Your task to perform on an android device: Open Wikipedia Image 0: 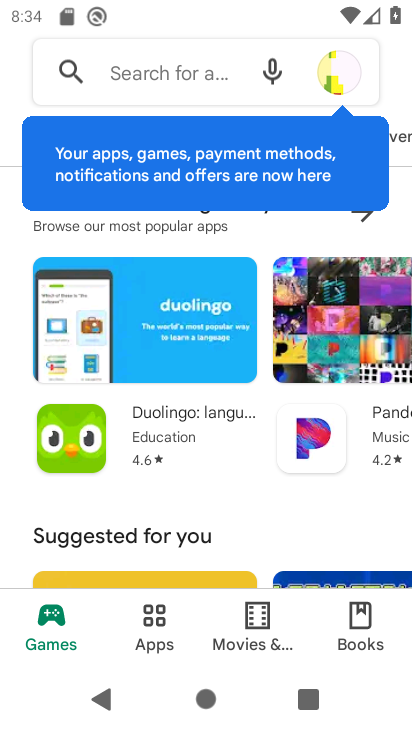
Step 0: press home button
Your task to perform on an android device: Open Wikipedia Image 1: 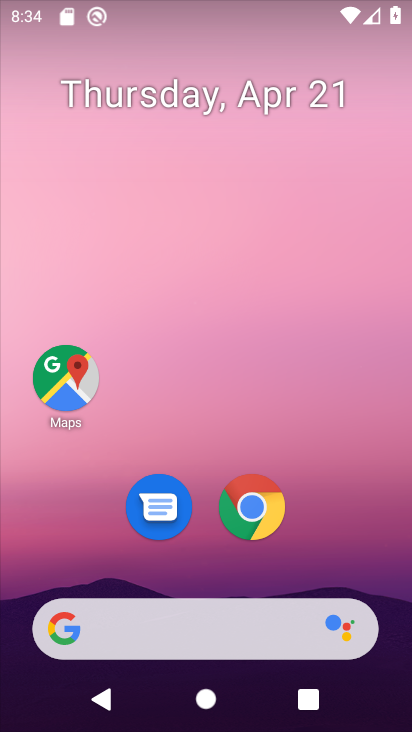
Step 1: drag from (381, 547) to (407, 79)
Your task to perform on an android device: Open Wikipedia Image 2: 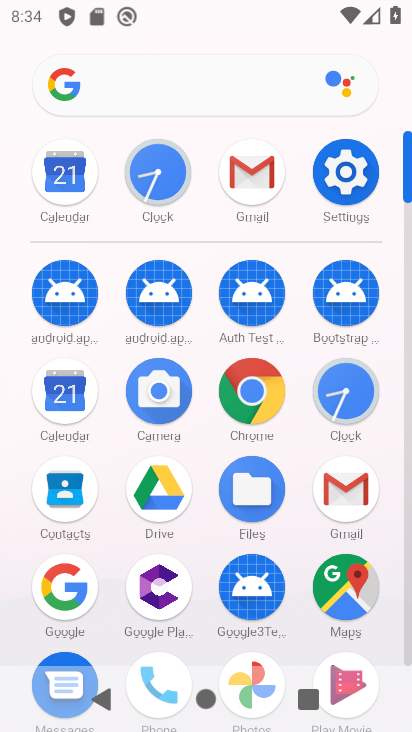
Step 2: click (259, 402)
Your task to perform on an android device: Open Wikipedia Image 3: 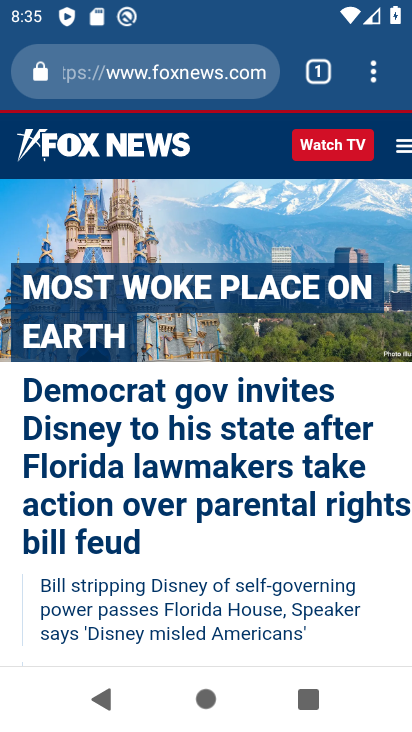
Step 3: click (241, 75)
Your task to perform on an android device: Open Wikipedia Image 4: 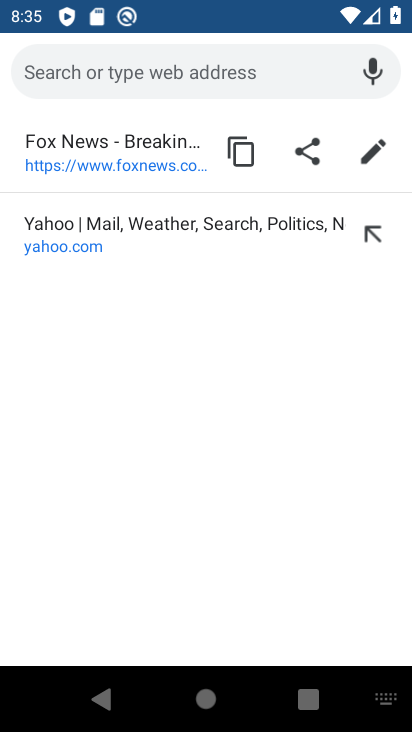
Step 4: type "wikipedia"
Your task to perform on an android device: Open Wikipedia Image 5: 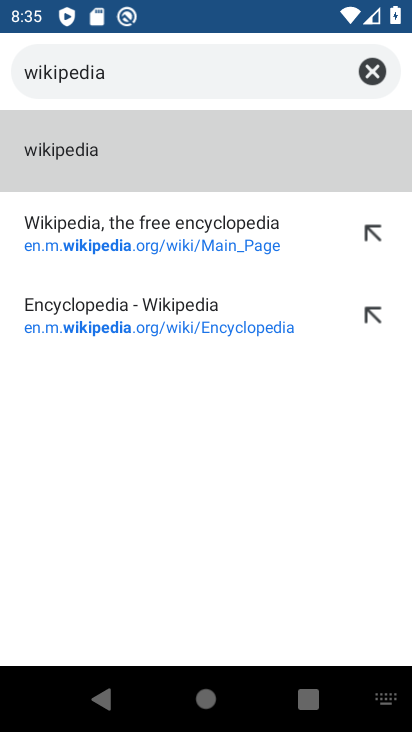
Step 5: click (95, 156)
Your task to perform on an android device: Open Wikipedia Image 6: 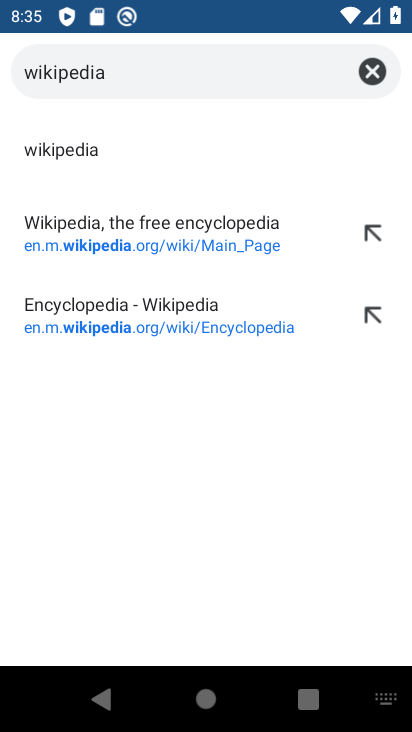
Step 6: click (94, 153)
Your task to perform on an android device: Open Wikipedia Image 7: 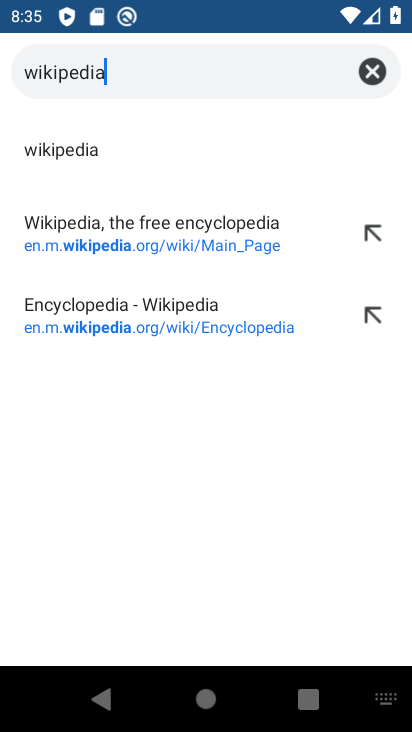
Step 7: click (94, 153)
Your task to perform on an android device: Open Wikipedia Image 8: 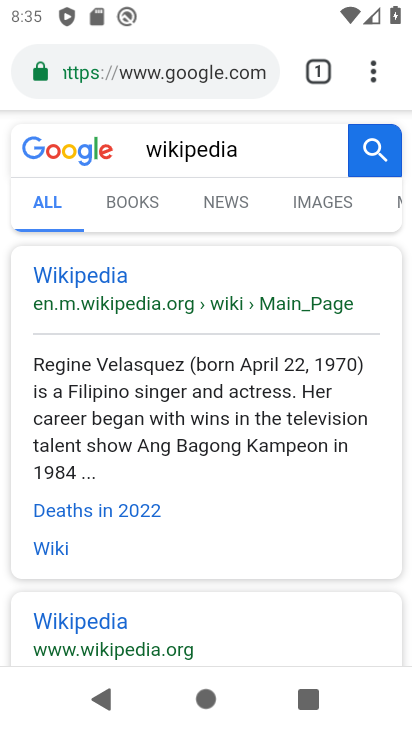
Step 8: click (109, 277)
Your task to perform on an android device: Open Wikipedia Image 9: 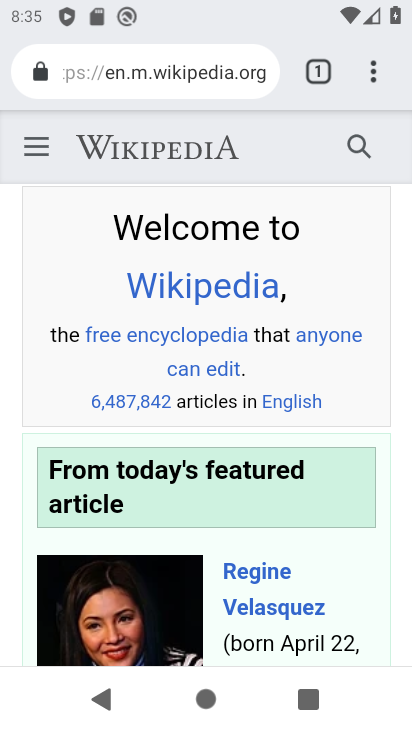
Step 9: task complete